Your task to perform on an android device: check the backup settings in the google photos Image 0: 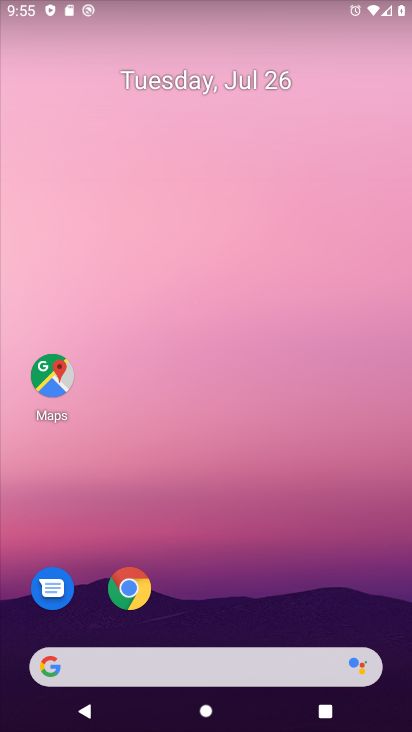
Step 0: drag from (198, 616) to (258, 1)
Your task to perform on an android device: check the backup settings in the google photos Image 1: 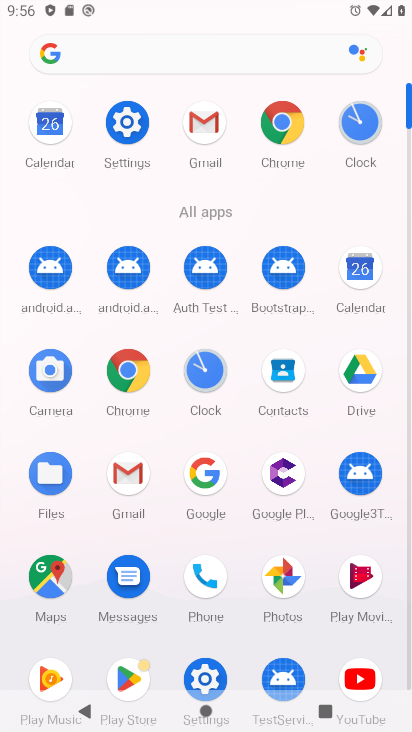
Step 1: click (283, 571)
Your task to perform on an android device: check the backup settings in the google photos Image 2: 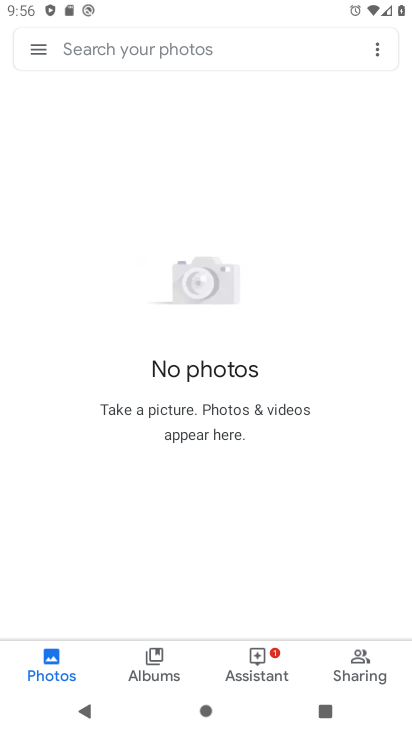
Step 2: click (42, 47)
Your task to perform on an android device: check the backup settings in the google photos Image 3: 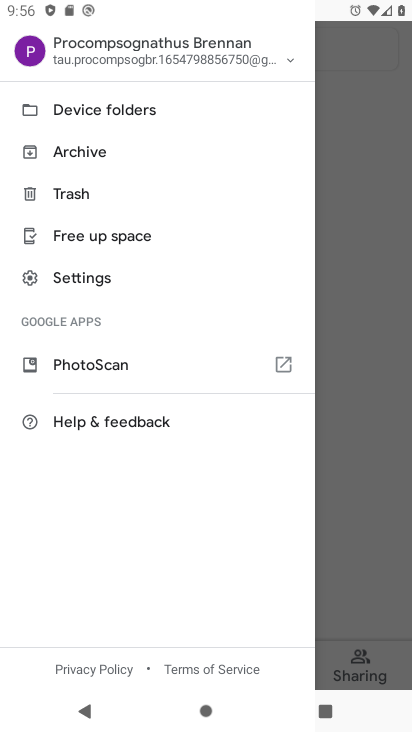
Step 3: click (58, 271)
Your task to perform on an android device: check the backup settings in the google photos Image 4: 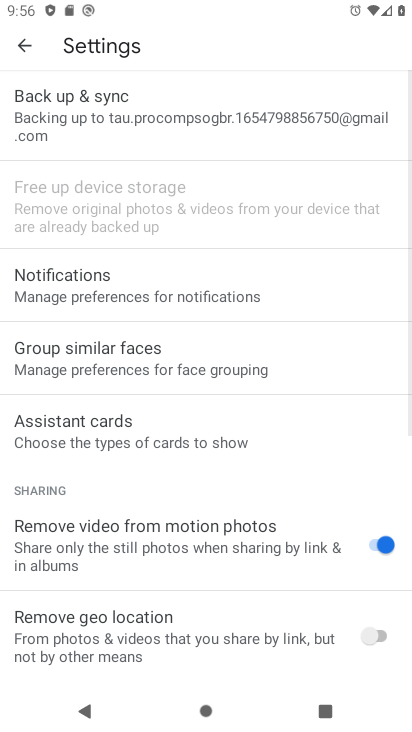
Step 4: click (137, 121)
Your task to perform on an android device: check the backup settings in the google photos Image 5: 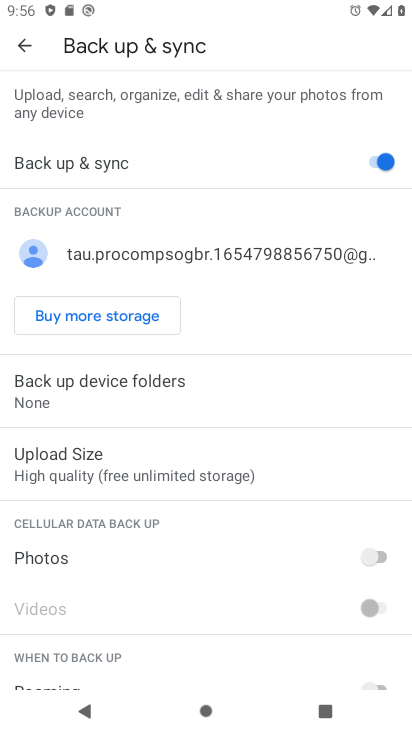
Step 5: task complete